Your task to perform on an android device: Go to network settings Image 0: 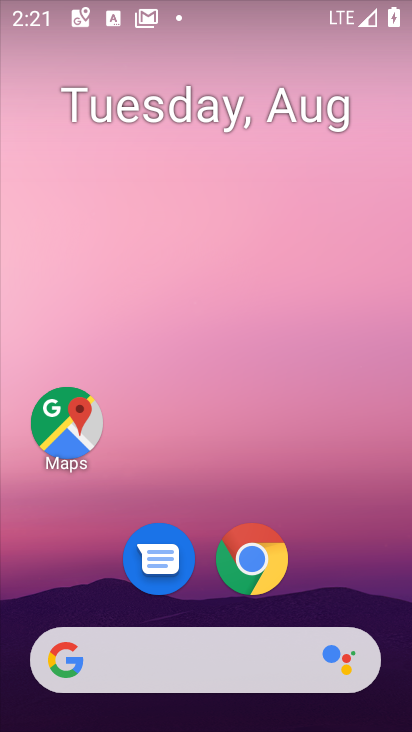
Step 0: drag from (198, 491) to (203, 224)
Your task to perform on an android device: Go to network settings Image 1: 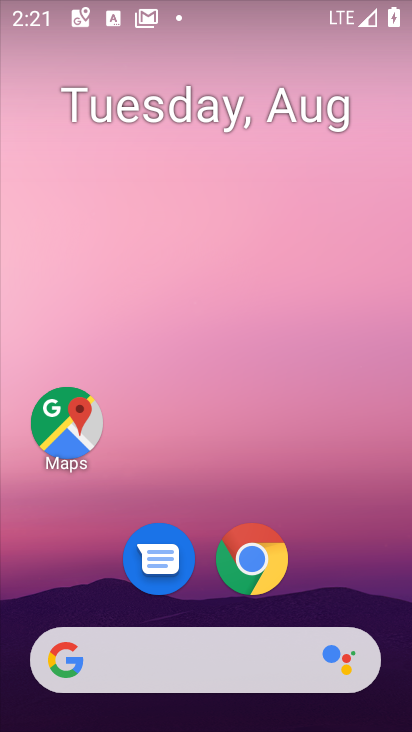
Step 1: drag from (209, 497) to (201, 179)
Your task to perform on an android device: Go to network settings Image 2: 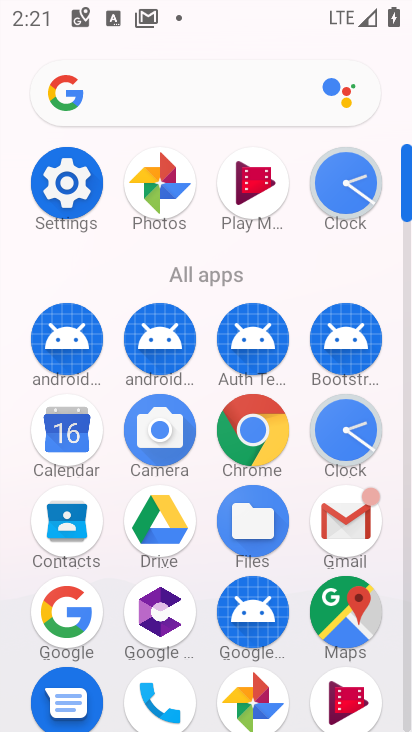
Step 2: click (52, 206)
Your task to perform on an android device: Go to network settings Image 3: 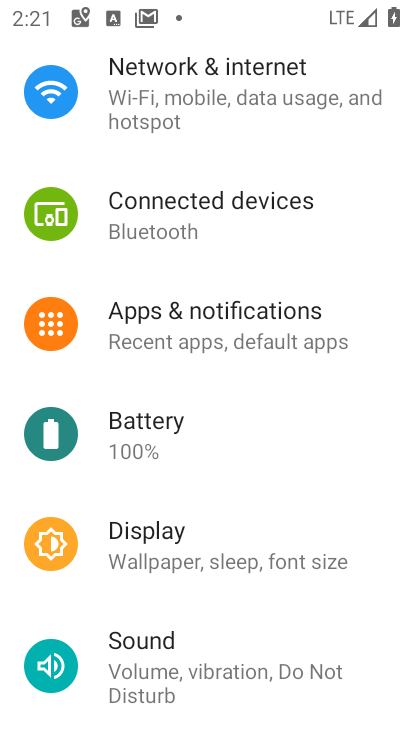
Step 3: click (183, 101)
Your task to perform on an android device: Go to network settings Image 4: 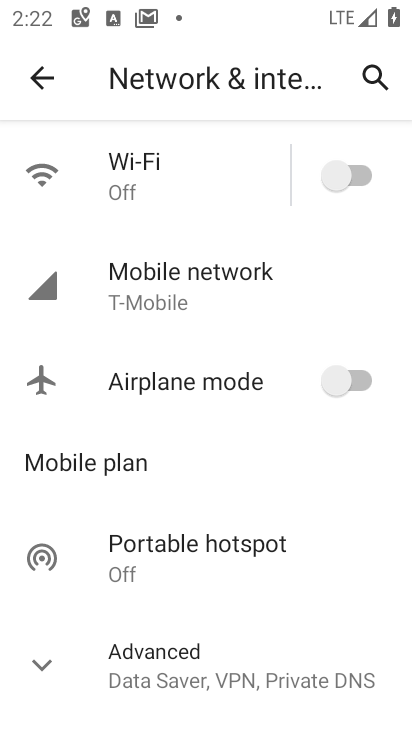
Step 4: task complete